Your task to perform on an android device: allow cookies in the chrome app Image 0: 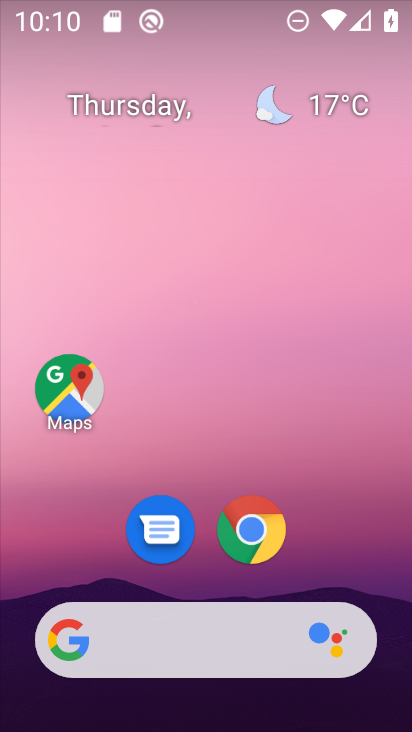
Step 0: click (249, 534)
Your task to perform on an android device: allow cookies in the chrome app Image 1: 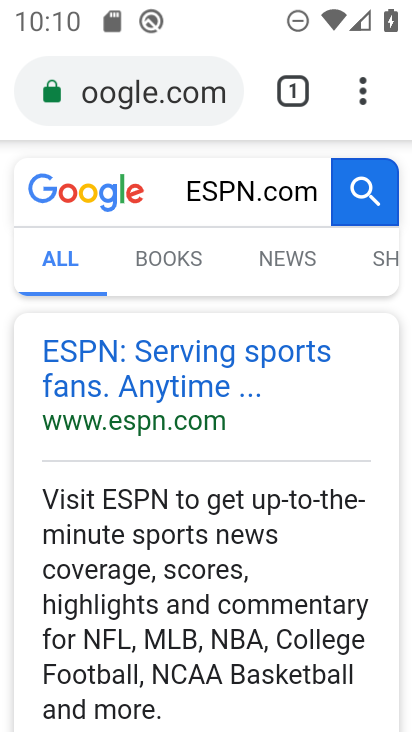
Step 1: click (356, 77)
Your task to perform on an android device: allow cookies in the chrome app Image 2: 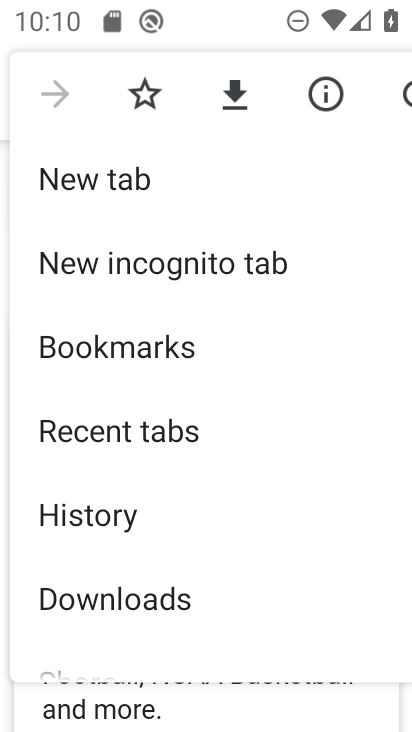
Step 2: drag from (229, 599) to (255, 263)
Your task to perform on an android device: allow cookies in the chrome app Image 3: 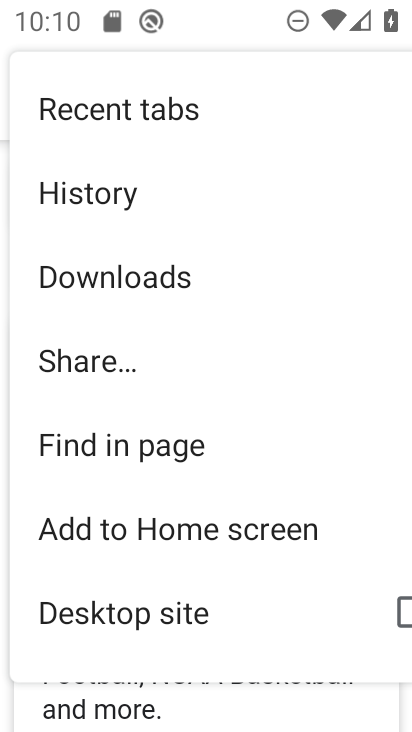
Step 3: drag from (255, 629) to (285, 317)
Your task to perform on an android device: allow cookies in the chrome app Image 4: 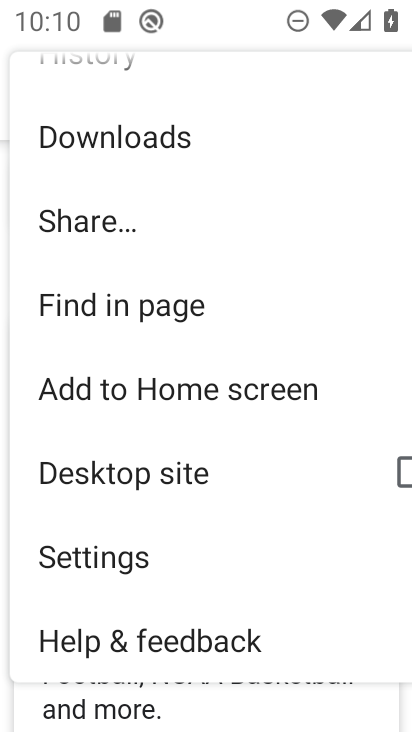
Step 4: click (80, 551)
Your task to perform on an android device: allow cookies in the chrome app Image 5: 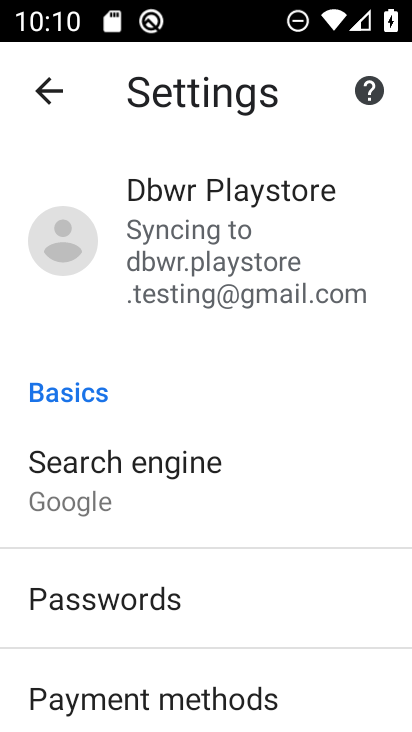
Step 5: drag from (241, 632) to (258, 368)
Your task to perform on an android device: allow cookies in the chrome app Image 6: 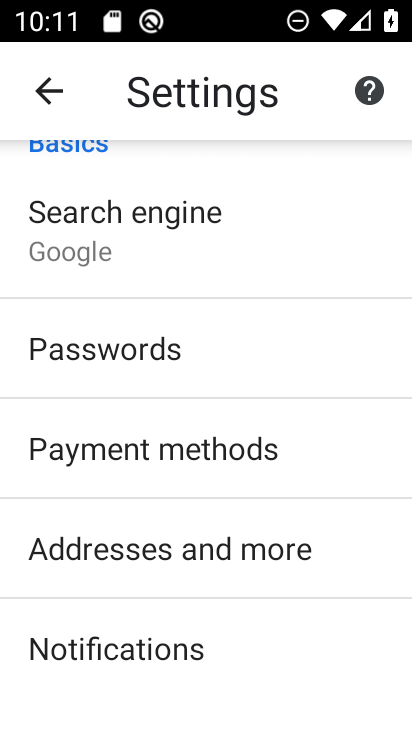
Step 6: drag from (310, 633) to (324, 349)
Your task to perform on an android device: allow cookies in the chrome app Image 7: 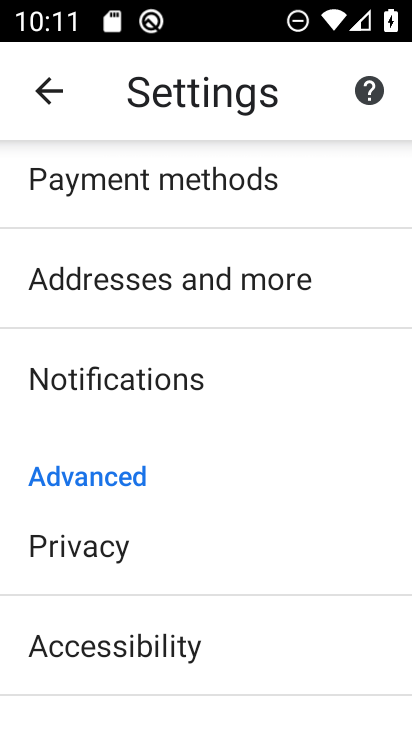
Step 7: drag from (268, 553) to (268, 412)
Your task to perform on an android device: allow cookies in the chrome app Image 8: 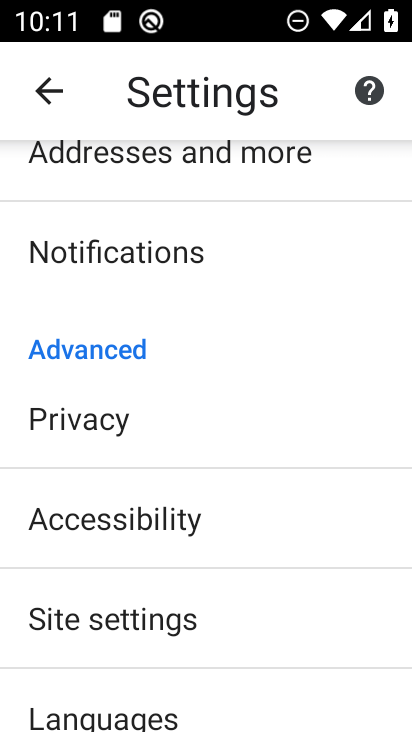
Step 8: click (78, 624)
Your task to perform on an android device: allow cookies in the chrome app Image 9: 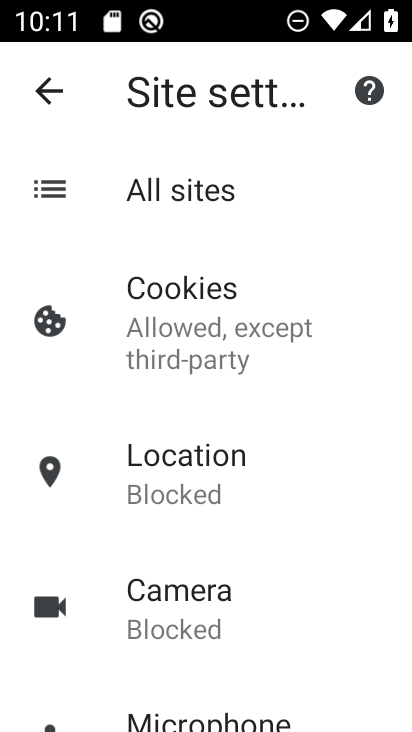
Step 9: click (164, 306)
Your task to perform on an android device: allow cookies in the chrome app Image 10: 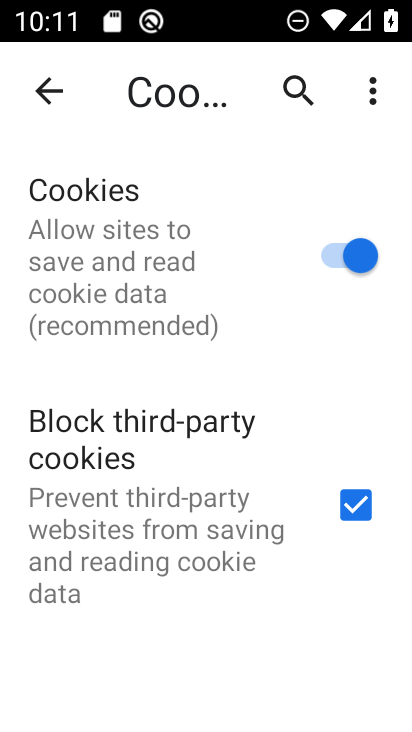
Step 10: task complete